Your task to perform on an android device: open a bookmark in the chrome app Image 0: 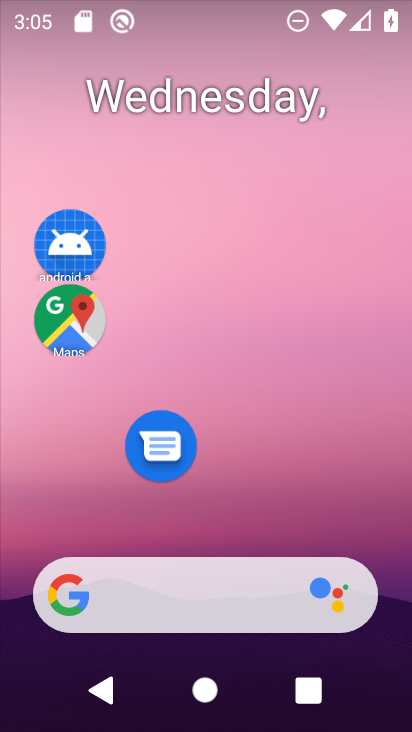
Step 0: drag from (260, 513) to (198, 92)
Your task to perform on an android device: open a bookmark in the chrome app Image 1: 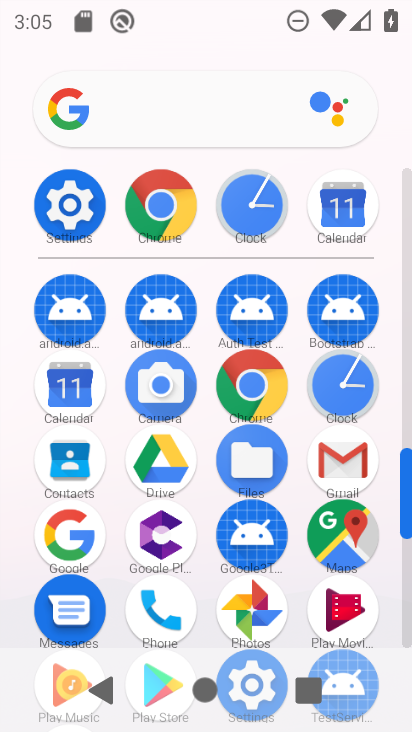
Step 1: click (176, 208)
Your task to perform on an android device: open a bookmark in the chrome app Image 2: 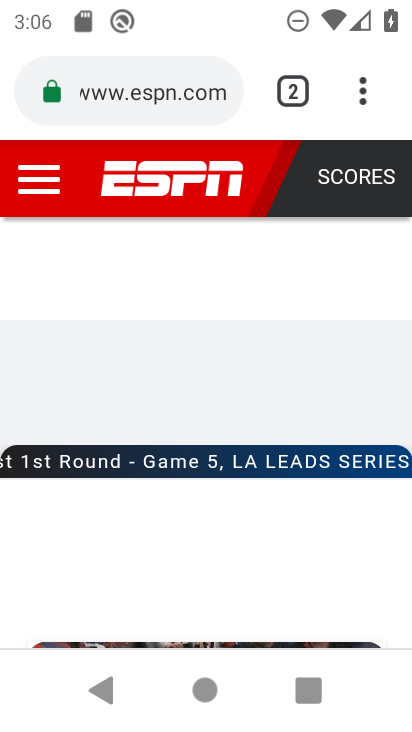
Step 2: click (374, 108)
Your task to perform on an android device: open a bookmark in the chrome app Image 3: 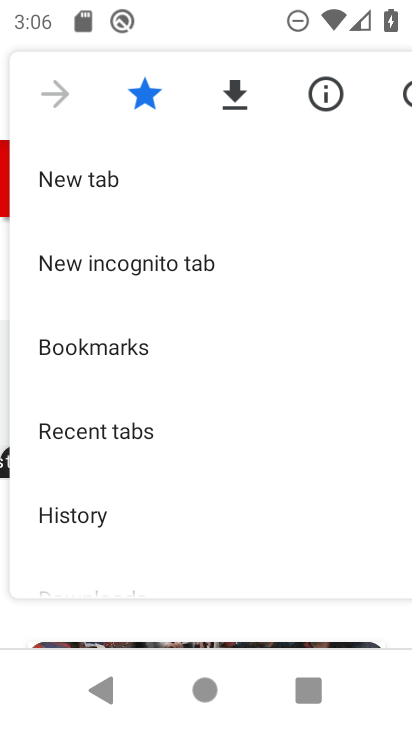
Step 3: drag from (239, 429) to (227, 230)
Your task to perform on an android device: open a bookmark in the chrome app Image 4: 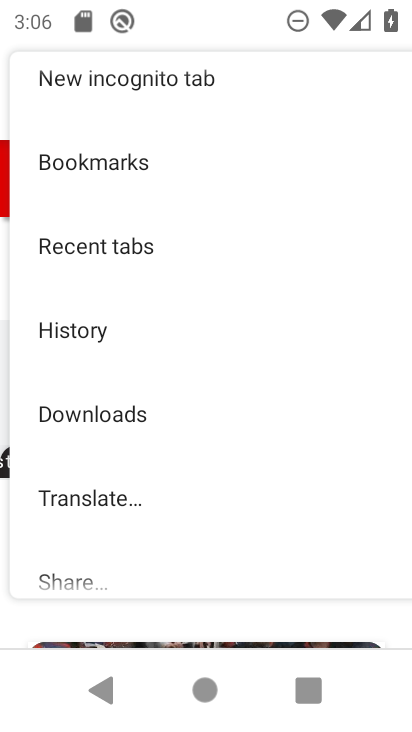
Step 4: click (225, 175)
Your task to perform on an android device: open a bookmark in the chrome app Image 5: 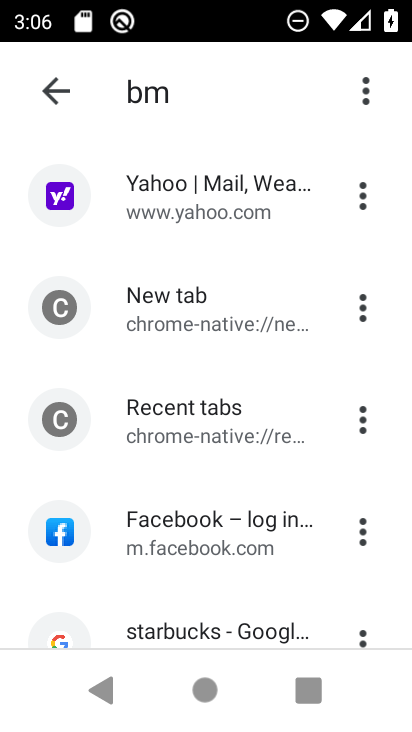
Step 5: click (225, 212)
Your task to perform on an android device: open a bookmark in the chrome app Image 6: 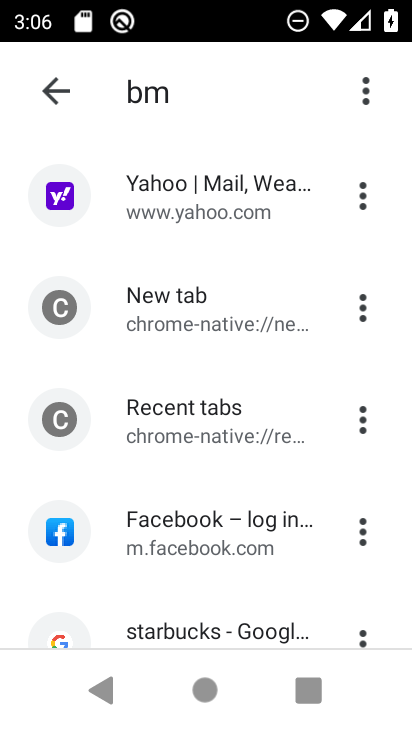
Step 6: task complete